Your task to perform on an android device: What's the weather? Image 0: 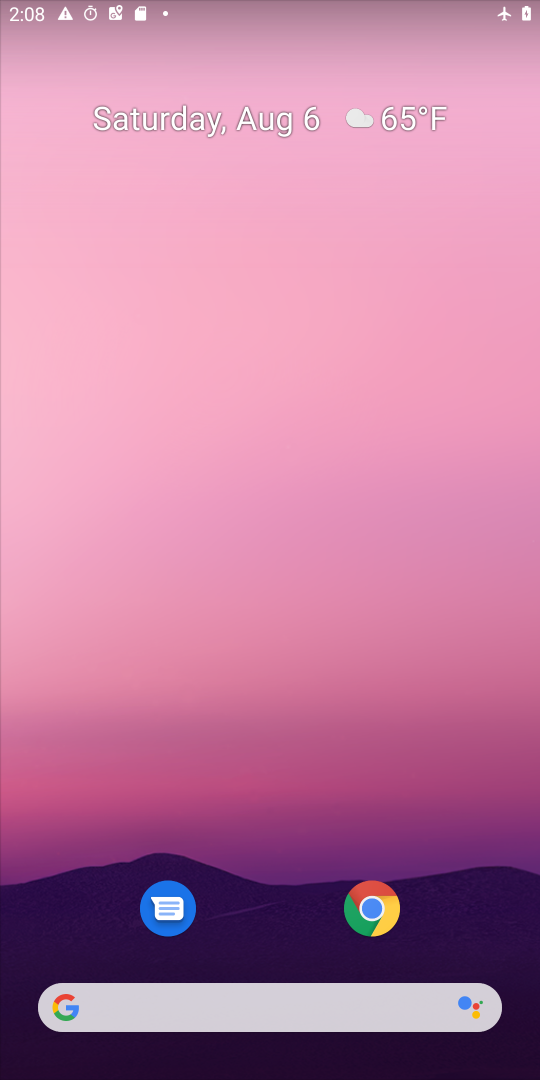
Step 0: click (162, 999)
Your task to perform on an android device: What's the weather? Image 1: 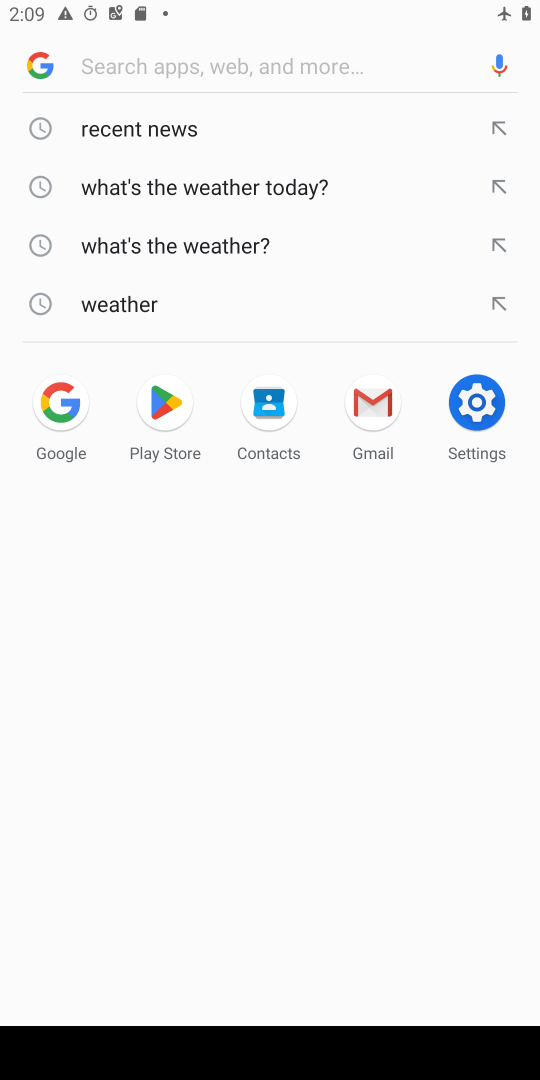
Step 1: type "what's the weather"
Your task to perform on an android device: What's the weather? Image 2: 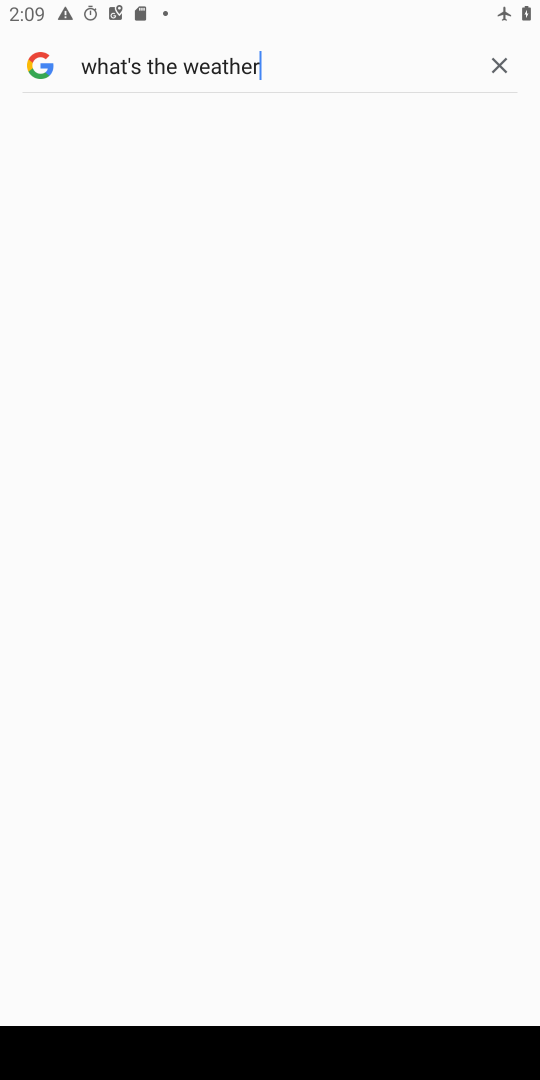
Step 2: task complete